Your task to perform on an android device: Set the phone to "Do not disturb". Image 0: 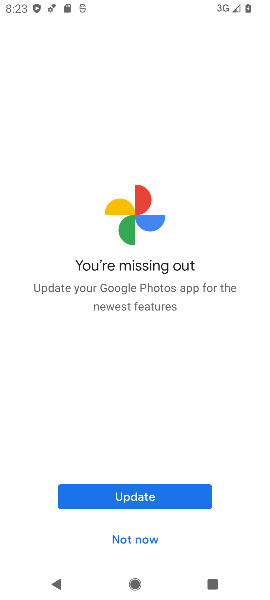
Step 0: press home button
Your task to perform on an android device: Set the phone to "Do not disturb". Image 1: 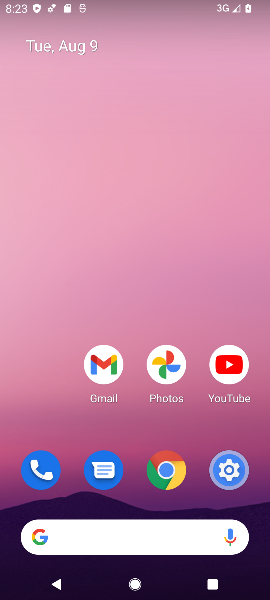
Step 1: click (229, 469)
Your task to perform on an android device: Set the phone to "Do not disturb". Image 2: 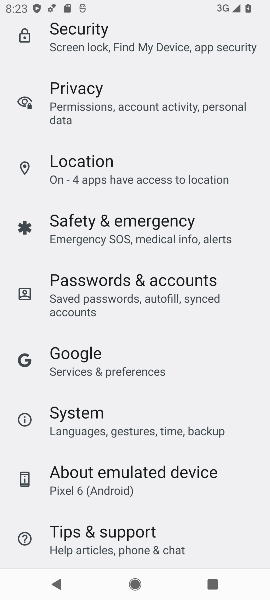
Step 2: drag from (157, 157) to (150, 493)
Your task to perform on an android device: Set the phone to "Do not disturb". Image 3: 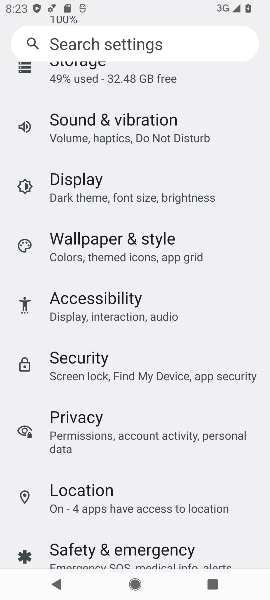
Step 3: drag from (138, 412) to (182, 288)
Your task to perform on an android device: Set the phone to "Do not disturb". Image 4: 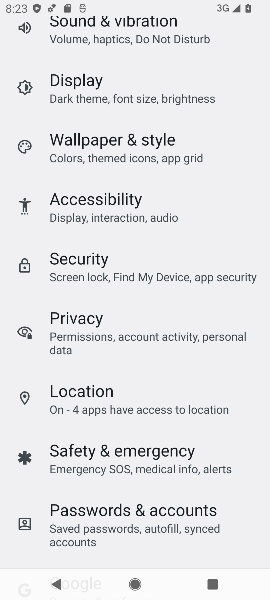
Step 4: drag from (128, 429) to (187, 293)
Your task to perform on an android device: Set the phone to "Do not disturb". Image 5: 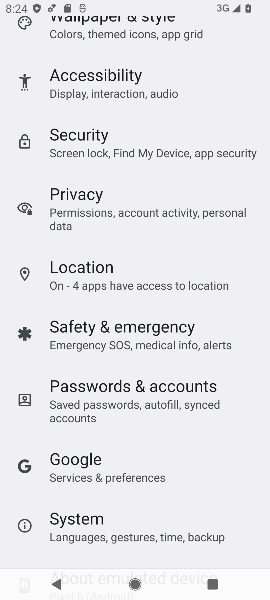
Step 5: drag from (181, 194) to (163, 335)
Your task to perform on an android device: Set the phone to "Do not disturb". Image 6: 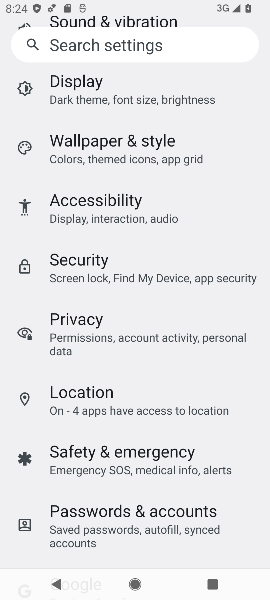
Step 6: click (186, 266)
Your task to perform on an android device: Set the phone to "Do not disturb". Image 7: 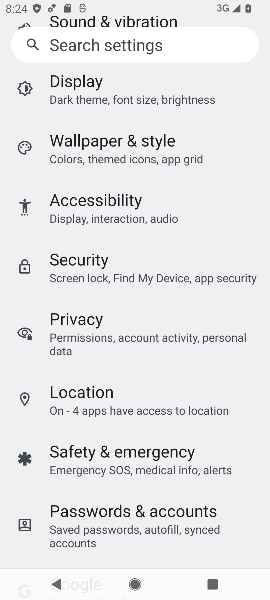
Step 7: drag from (155, 115) to (156, 306)
Your task to perform on an android device: Set the phone to "Do not disturb". Image 8: 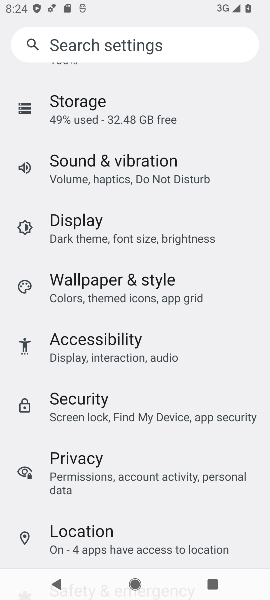
Step 8: drag from (161, 136) to (162, 269)
Your task to perform on an android device: Set the phone to "Do not disturb". Image 9: 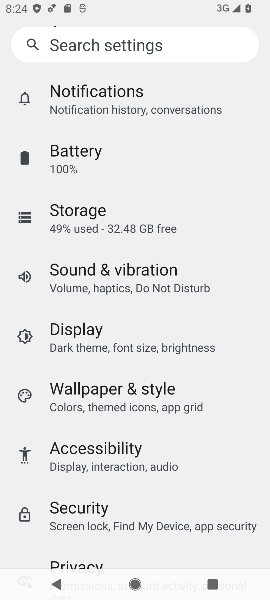
Step 9: click (146, 287)
Your task to perform on an android device: Set the phone to "Do not disturb". Image 10: 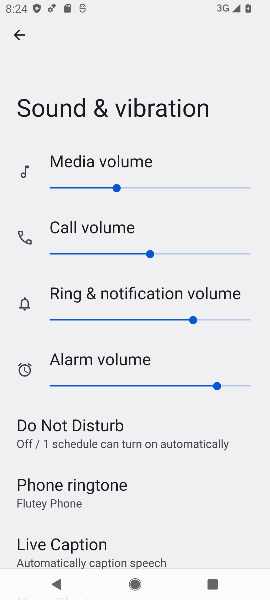
Step 10: click (142, 444)
Your task to perform on an android device: Set the phone to "Do not disturb". Image 11: 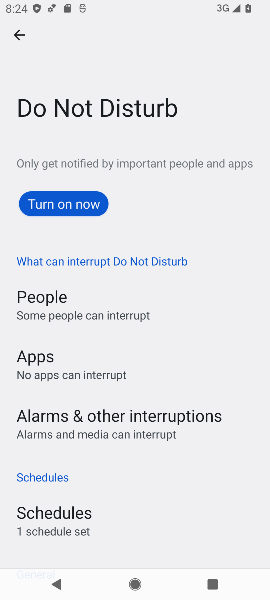
Step 11: click (74, 207)
Your task to perform on an android device: Set the phone to "Do not disturb". Image 12: 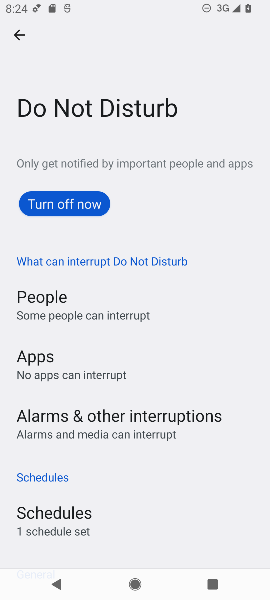
Step 12: task complete